Your task to perform on an android device: open app "Etsy: Buy & Sell Unique Items" Image 0: 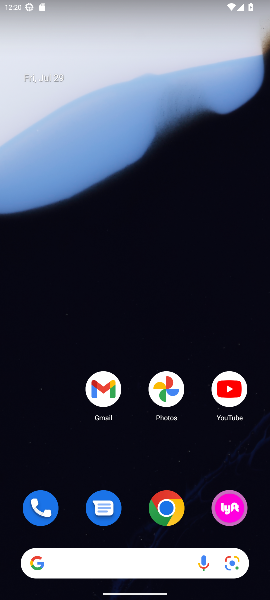
Step 0: drag from (110, 567) to (79, 89)
Your task to perform on an android device: open app "Etsy: Buy & Sell Unique Items" Image 1: 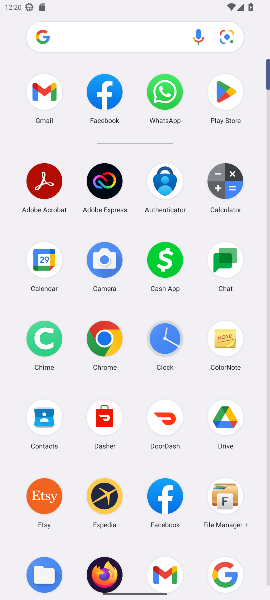
Step 1: click (225, 93)
Your task to perform on an android device: open app "Etsy: Buy & Sell Unique Items" Image 2: 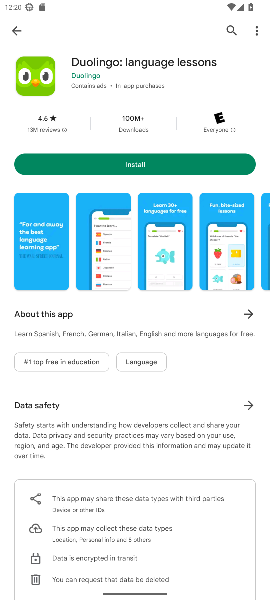
Step 2: click (232, 28)
Your task to perform on an android device: open app "Etsy: Buy & Sell Unique Items" Image 3: 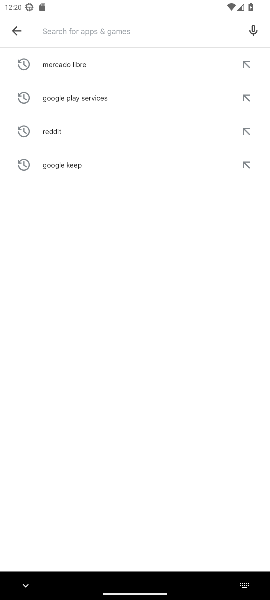
Step 3: type "etsy: buy & sell unique items"
Your task to perform on an android device: open app "Etsy: Buy & Sell Unique Items" Image 4: 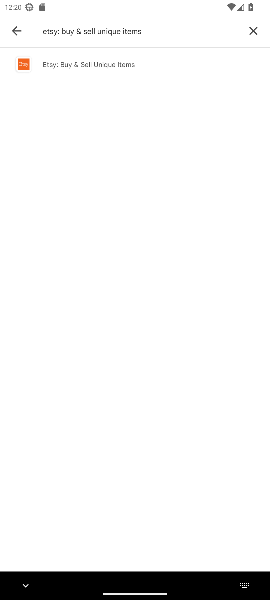
Step 4: click (136, 70)
Your task to perform on an android device: open app "Etsy: Buy & Sell Unique Items" Image 5: 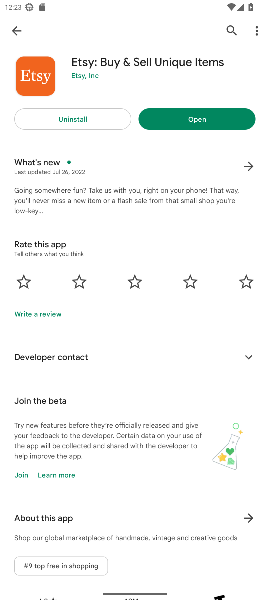
Step 5: task complete